Your task to perform on an android device: Is it going to rain tomorrow? Image 0: 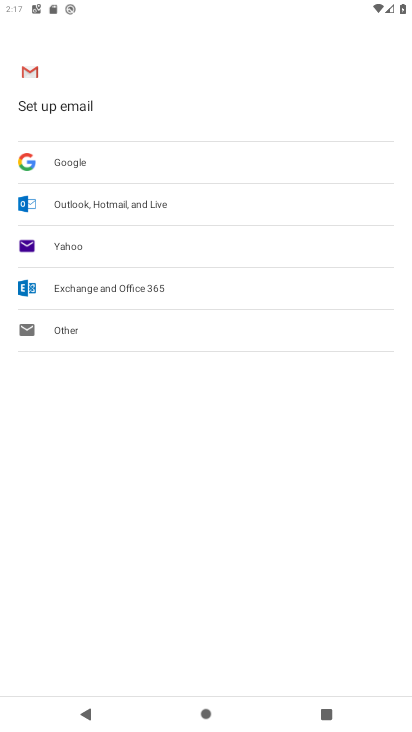
Step 0: press home button
Your task to perform on an android device: Is it going to rain tomorrow? Image 1: 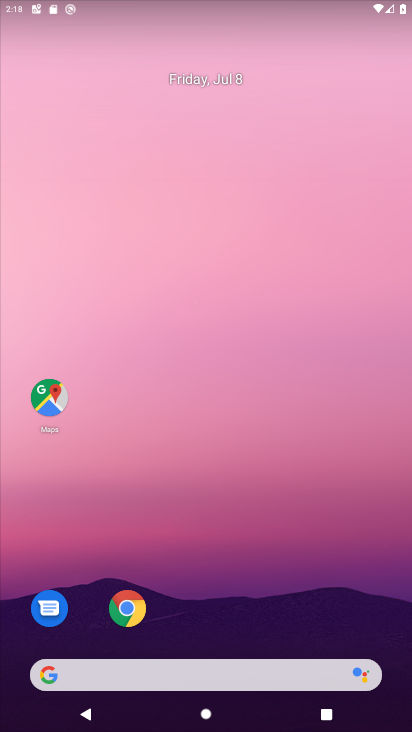
Step 1: drag from (213, 483) to (209, 189)
Your task to perform on an android device: Is it going to rain tomorrow? Image 2: 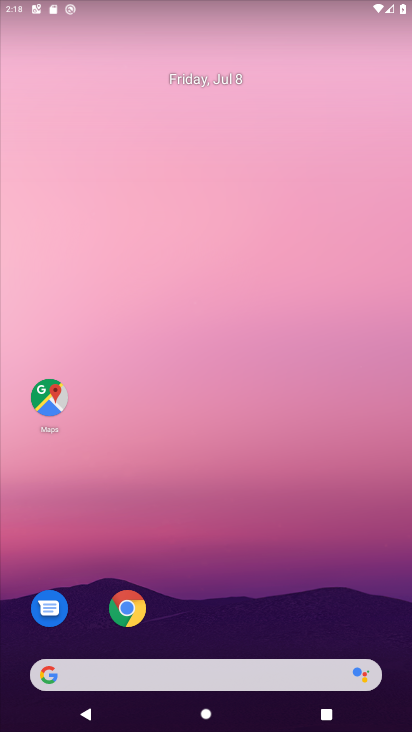
Step 2: drag from (191, 572) to (194, 248)
Your task to perform on an android device: Is it going to rain tomorrow? Image 3: 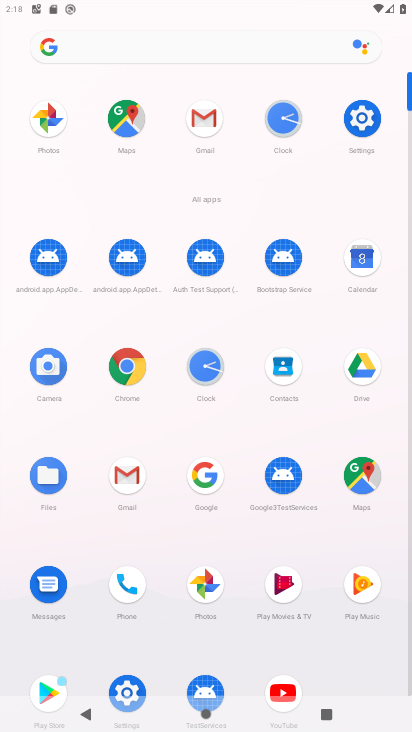
Step 3: click (138, 365)
Your task to perform on an android device: Is it going to rain tomorrow? Image 4: 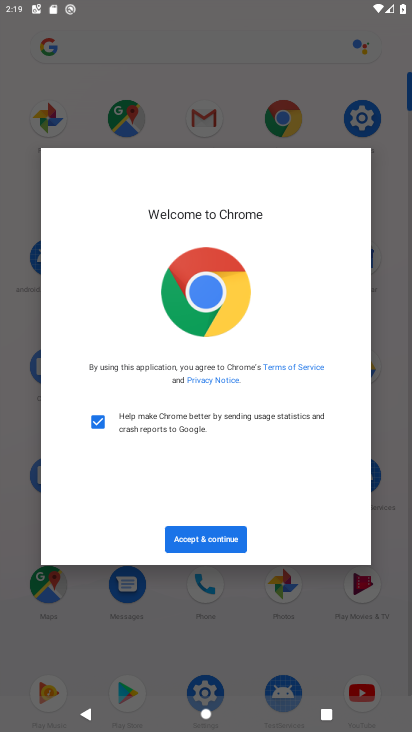
Step 4: click (201, 529)
Your task to perform on an android device: Is it going to rain tomorrow? Image 5: 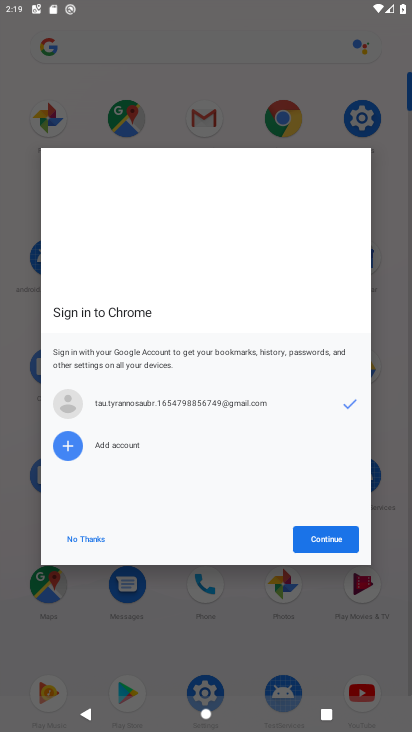
Step 5: click (338, 540)
Your task to perform on an android device: Is it going to rain tomorrow? Image 6: 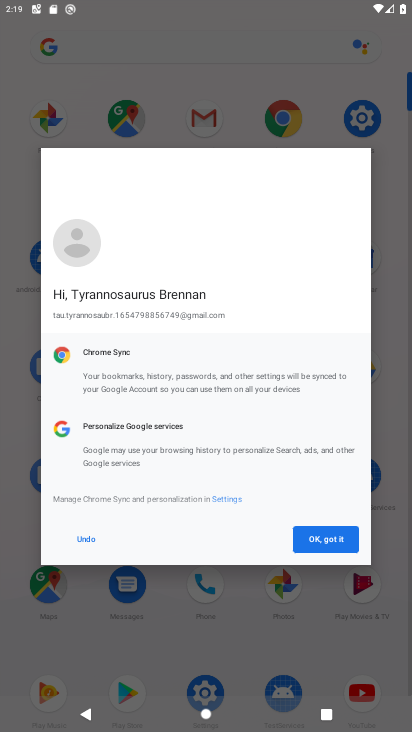
Step 6: click (300, 542)
Your task to perform on an android device: Is it going to rain tomorrow? Image 7: 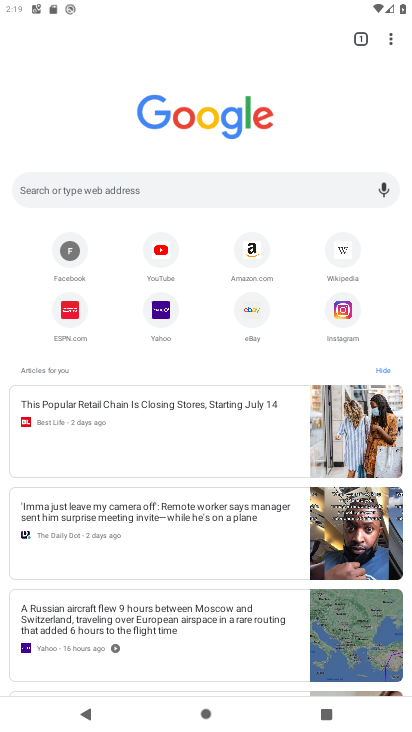
Step 7: click (252, 176)
Your task to perform on an android device: Is it going to rain tomorrow? Image 8: 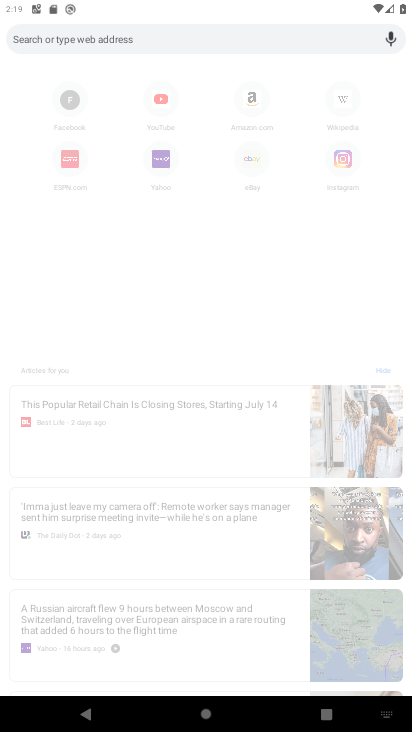
Step 8: type "Is it going to rain tomorrow "
Your task to perform on an android device: Is it going to rain tomorrow? Image 9: 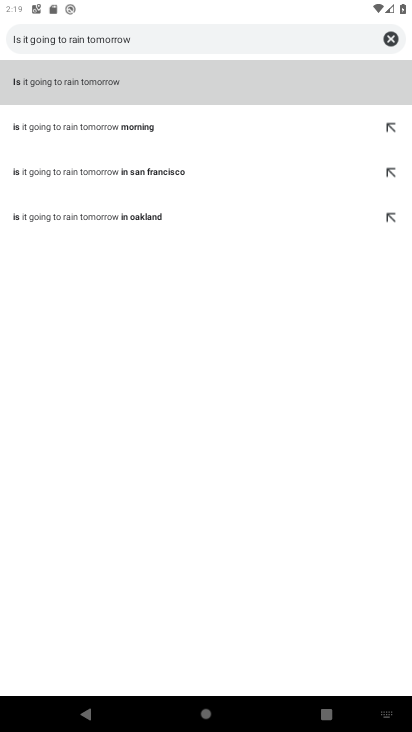
Step 9: click (91, 73)
Your task to perform on an android device: Is it going to rain tomorrow? Image 10: 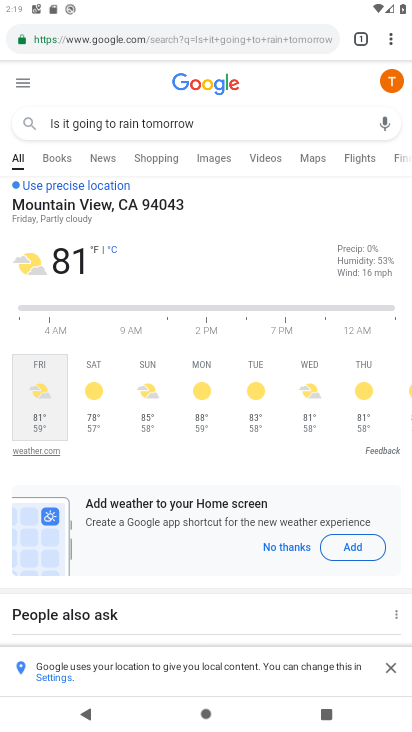
Step 10: task complete